Your task to perform on an android device: change the clock display to analog Image 0: 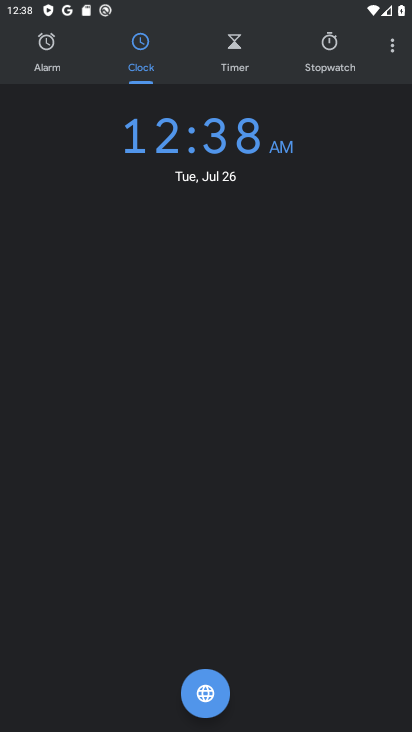
Step 0: press home button
Your task to perform on an android device: change the clock display to analog Image 1: 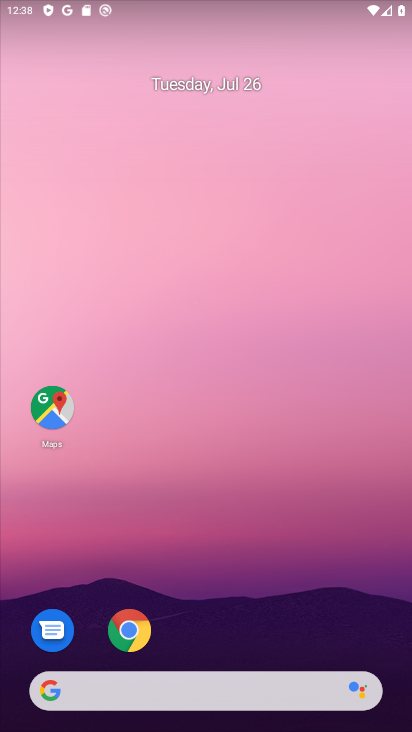
Step 1: drag from (188, 604) to (163, 292)
Your task to perform on an android device: change the clock display to analog Image 2: 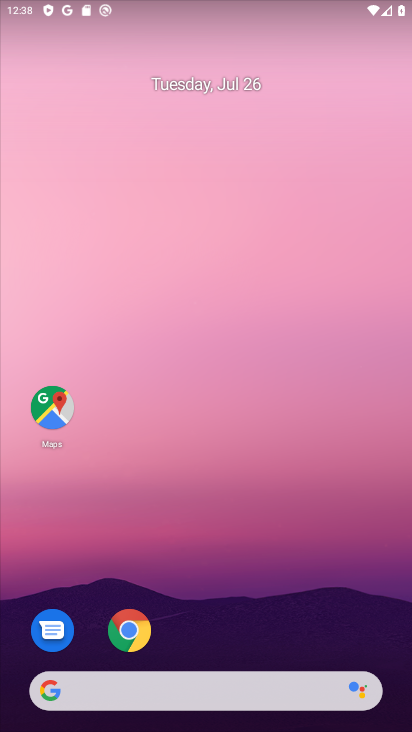
Step 2: drag from (190, 590) to (174, 275)
Your task to perform on an android device: change the clock display to analog Image 3: 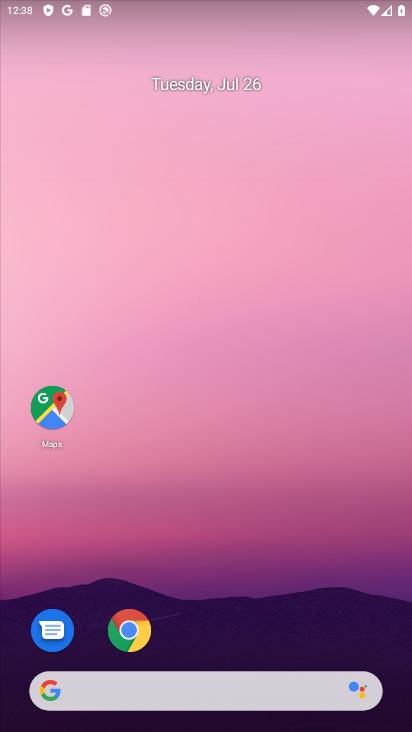
Step 3: drag from (210, 620) to (207, 280)
Your task to perform on an android device: change the clock display to analog Image 4: 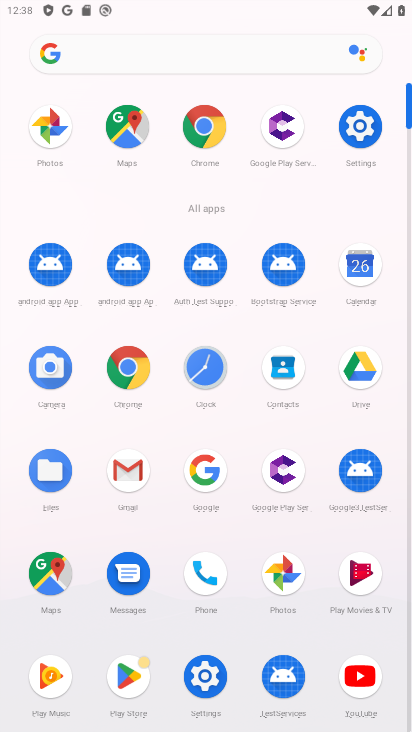
Step 4: click (190, 368)
Your task to perform on an android device: change the clock display to analog Image 5: 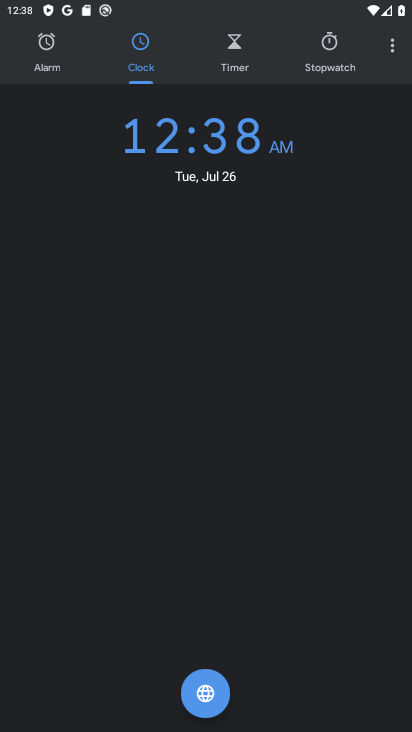
Step 5: click (392, 55)
Your task to perform on an android device: change the clock display to analog Image 6: 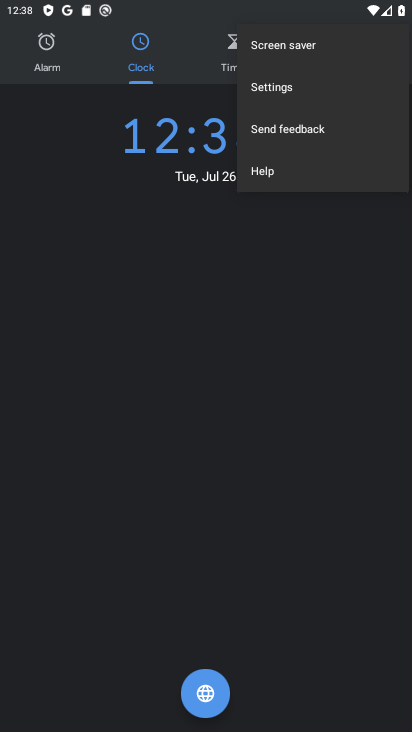
Step 6: click (263, 93)
Your task to perform on an android device: change the clock display to analog Image 7: 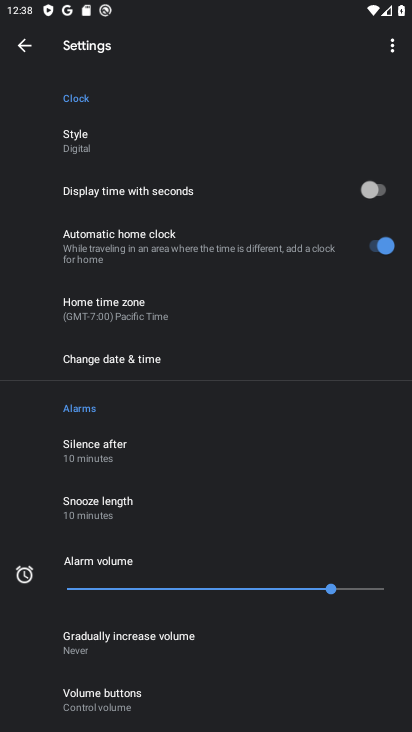
Step 7: click (78, 131)
Your task to perform on an android device: change the clock display to analog Image 8: 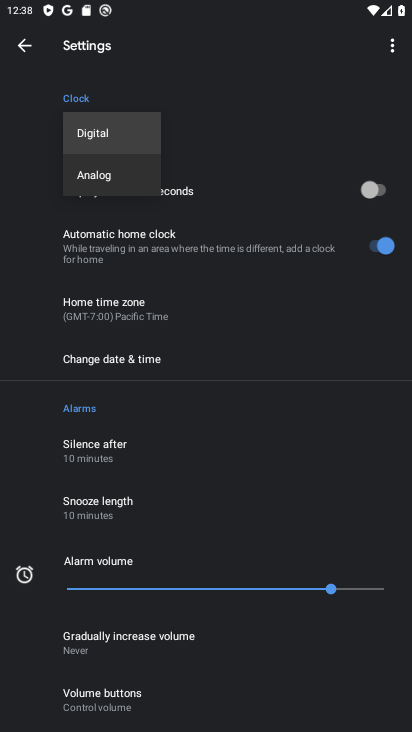
Step 8: click (105, 172)
Your task to perform on an android device: change the clock display to analog Image 9: 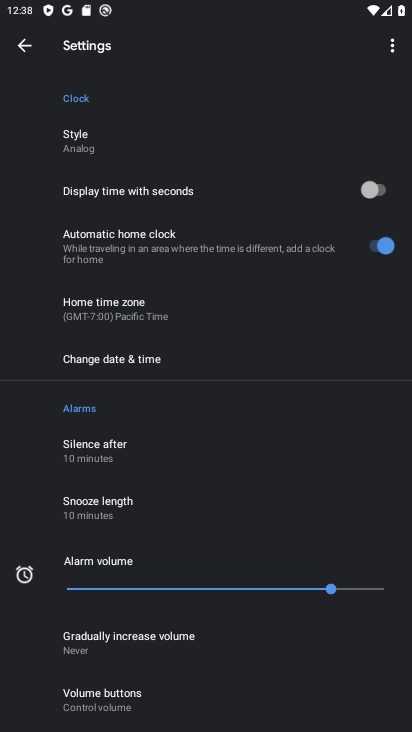
Step 9: task complete